Your task to perform on an android device: check battery use Image 0: 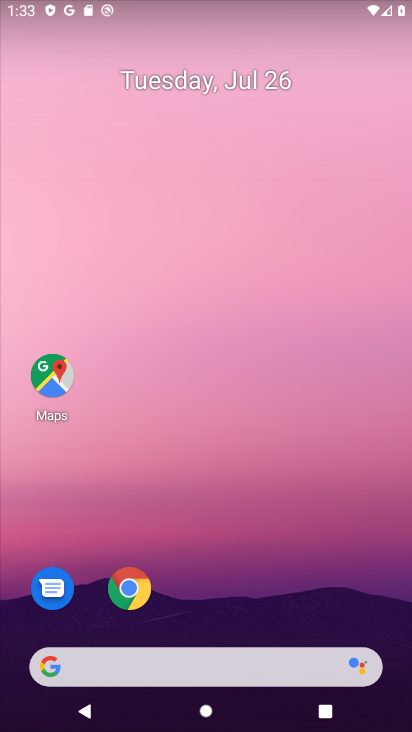
Step 0: click (125, 30)
Your task to perform on an android device: check battery use Image 1: 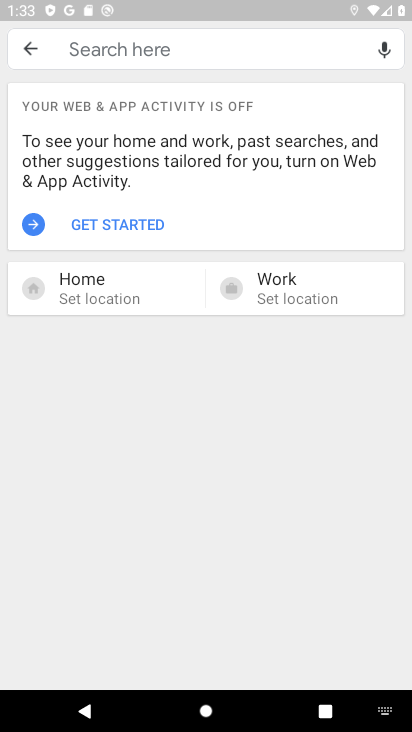
Step 1: press home button
Your task to perform on an android device: check battery use Image 2: 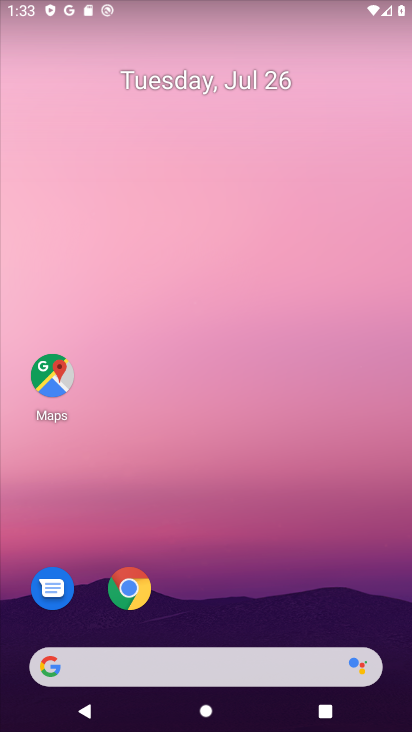
Step 2: drag from (255, 628) to (412, 37)
Your task to perform on an android device: check battery use Image 3: 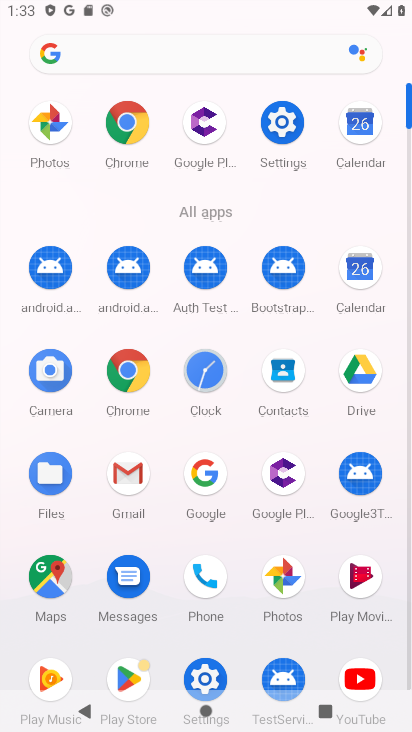
Step 3: click (206, 656)
Your task to perform on an android device: check battery use Image 4: 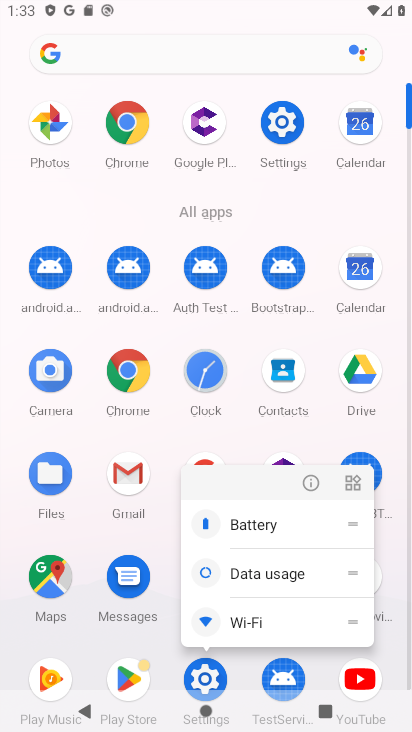
Step 4: click (205, 656)
Your task to perform on an android device: check battery use Image 5: 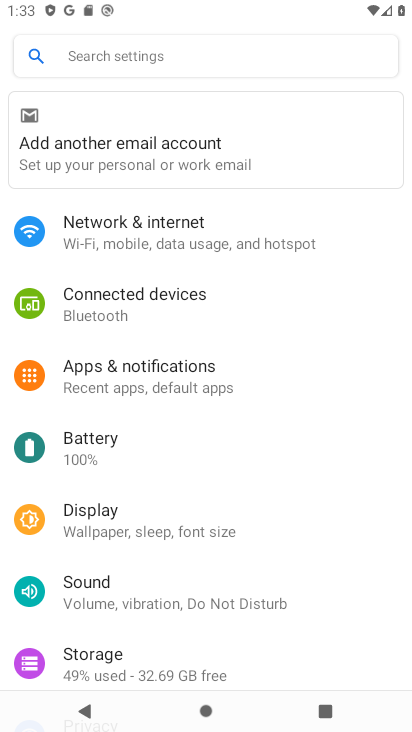
Step 5: click (110, 441)
Your task to perform on an android device: check battery use Image 6: 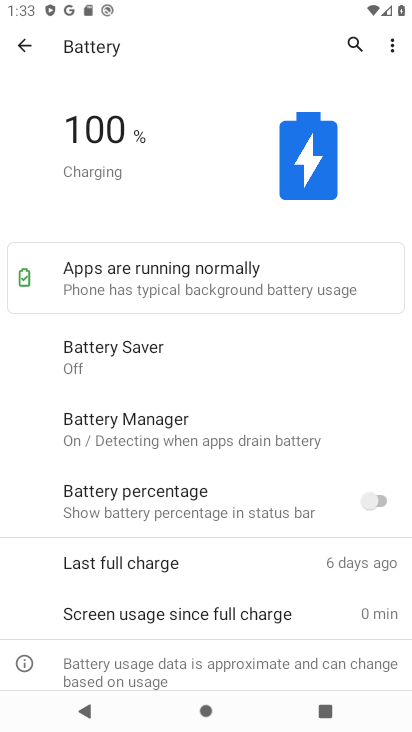
Step 6: task complete